Your task to perform on an android device: turn smart compose on in the gmail app Image 0: 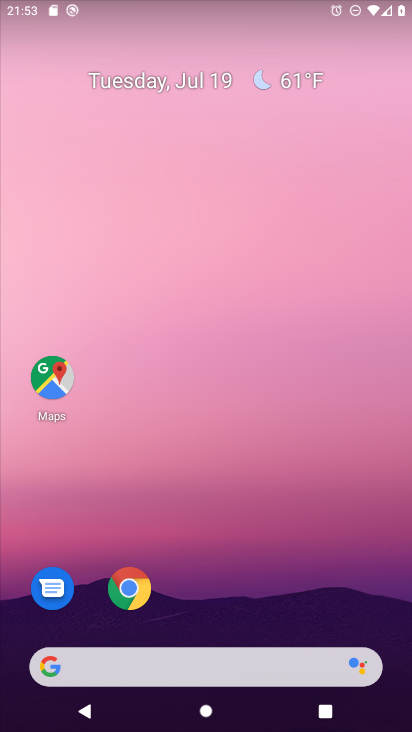
Step 0: drag from (241, 617) to (233, 66)
Your task to perform on an android device: turn smart compose on in the gmail app Image 1: 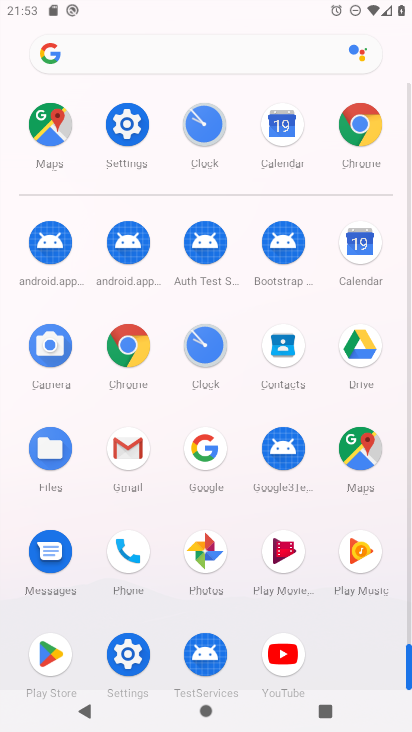
Step 1: click (125, 450)
Your task to perform on an android device: turn smart compose on in the gmail app Image 2: 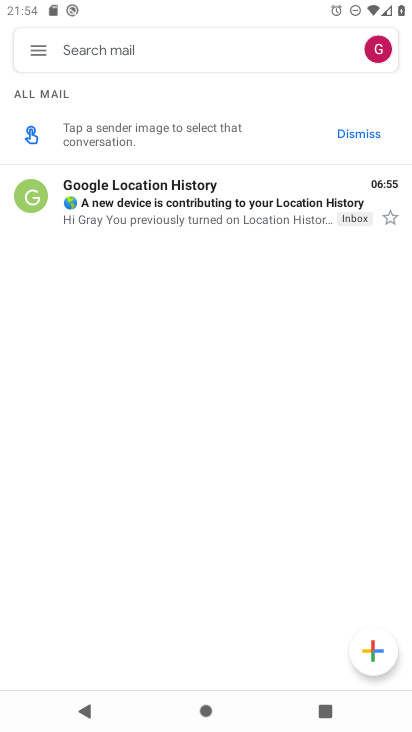
Step 2: click (34, 47)
Your task to perform on an android device: turn smart compose on in the gmail app Image 3: 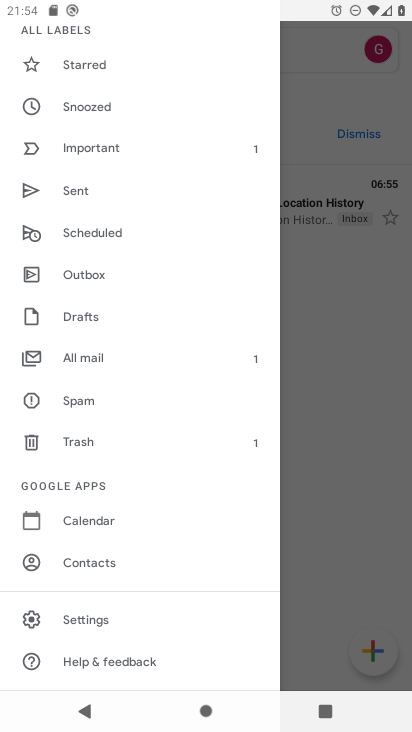
Step 3: click (116, 618)
Your task to perform on an android device: turn smart compose on in the gmail app Image 4: 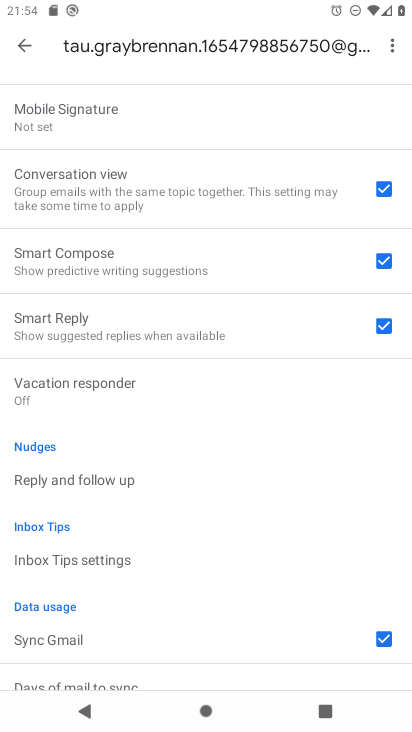
Step 4: task complete